Your task to perform on an android device: Go to Google Image 0: 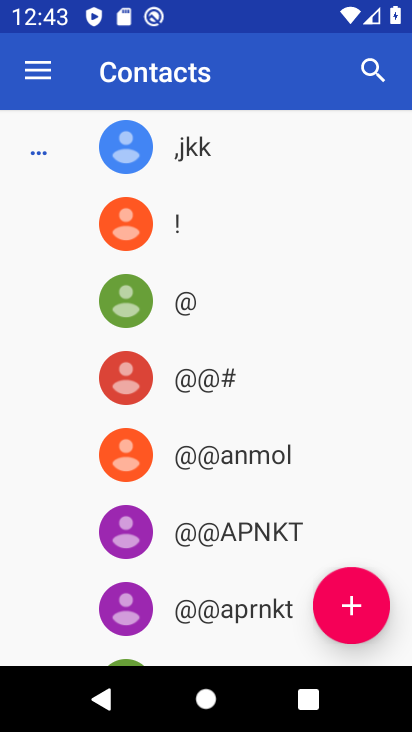
Step 0: press back button
Your task to perform on an android device: Go to Google Image 1: 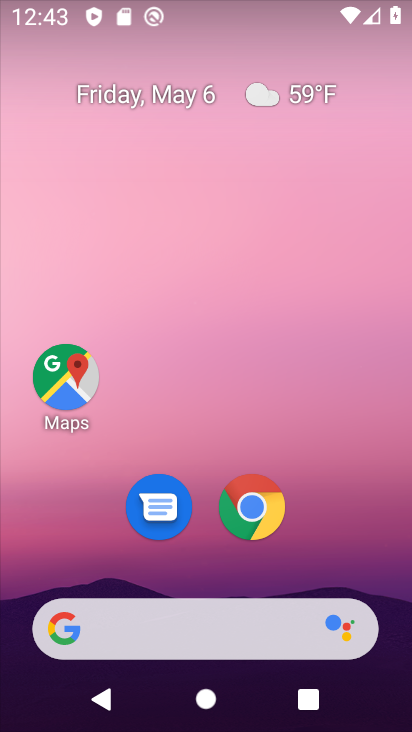
Step 1: drag from (96, 598) to (185, 63)
Your task to perform on an android device: Go to Google Image 2: 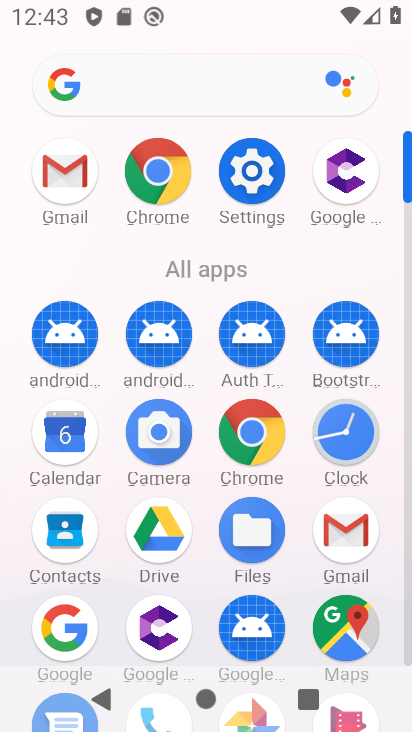
Step 2: drag from (144, 667) to (204, 375)
Your task to perform on an android device: Go to Google Image 3: 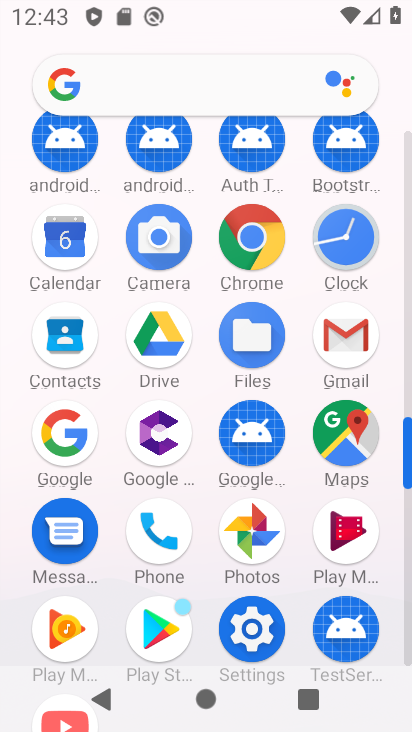
Step 3: click (65, 453)
Your task to perform on an android device: Go to Google Image 4: 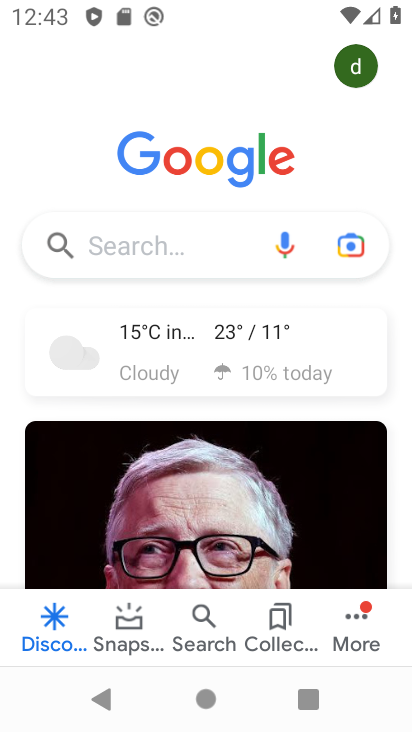
Step 4: task complete